Your task to perform on an android device: open device folders in google photos Image 0: 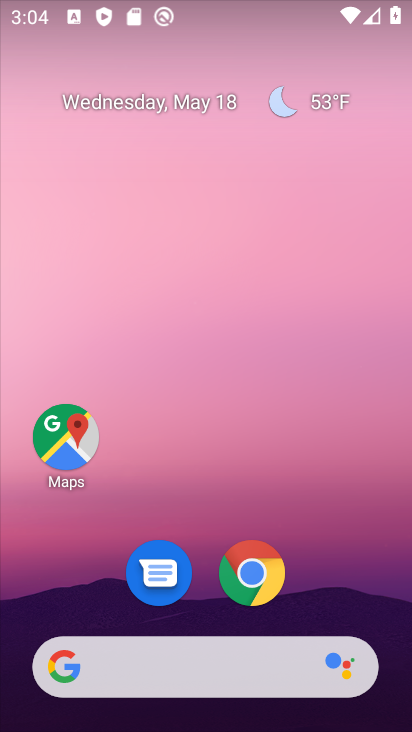
Step 0: drag from (220, 581) to (264, 233)
Your task to perform on an android device: open device folders in google photos Image 1: 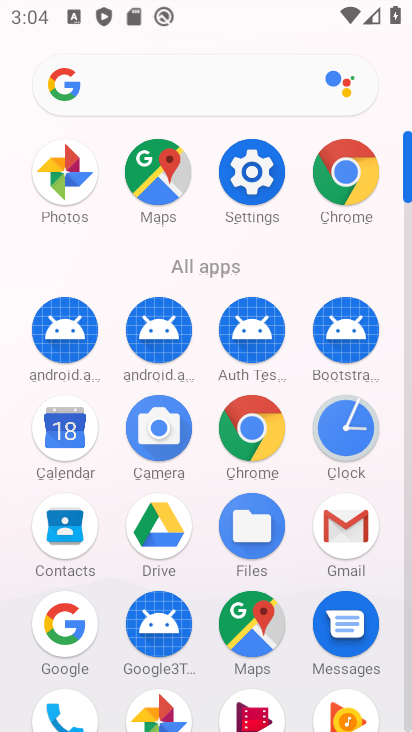
Step 1: click (71, 190)
Your task to perform on an android device: open device folders in google photos Image 2: 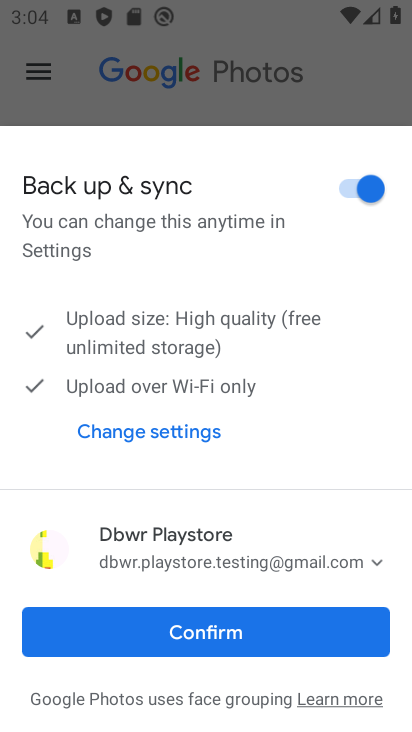
Step 2: click (270, 622)
Your task to perform on an android device: open device folders in google photos Image 3: 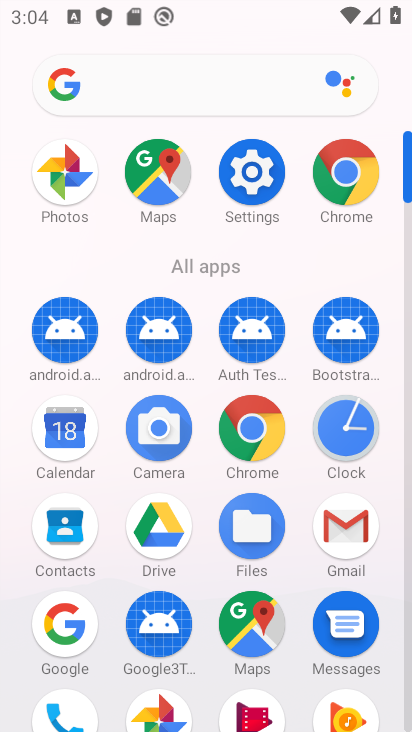
Step 3: click (90, 171)
Your task to perform on an android device: open device folders in google photos Image 4: 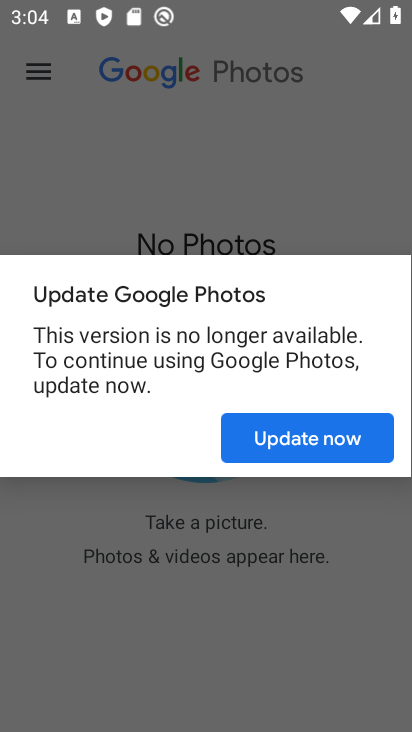
Step 4: click (304, 429)
Your task to perform on an android device: open device folders in google photos Image 5: 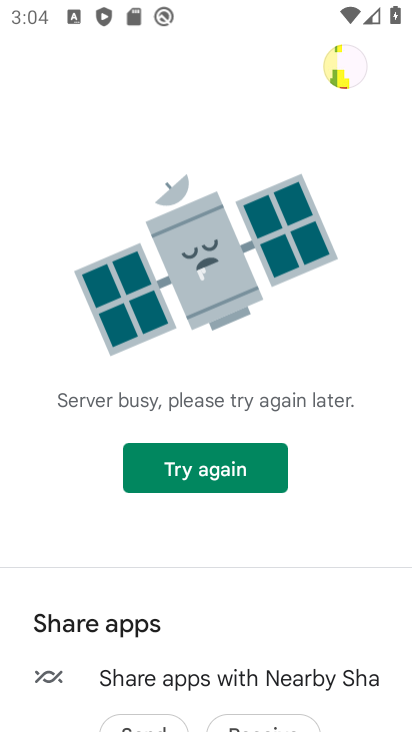
Step 5: press back button
Your task to perform on an android device: open device folders in google photos Image 6: 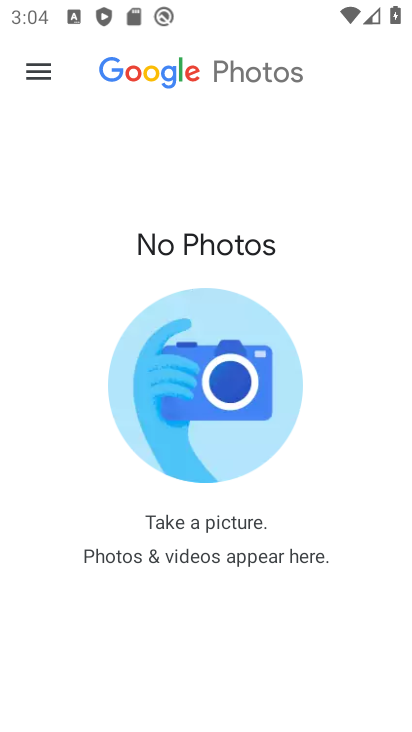
Step 6: click (48, 70)
Your task to perform on an android device: open device folders in google photos Image 7: 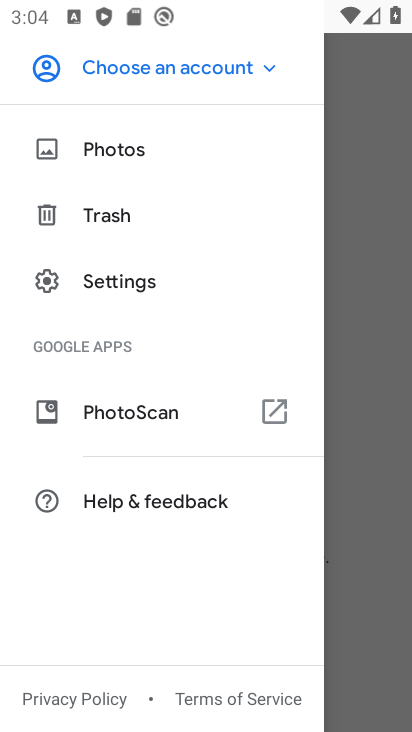
Step 7: click (207, 65)
Your task to perform on an android device: open device folders in google photos Image 8: 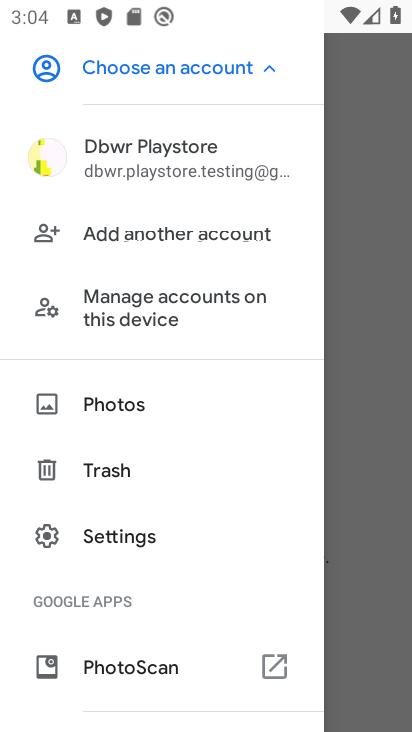
Step 8: click (141, 156)
Your task to perform on an android device: open device folders in google photos Image 9: 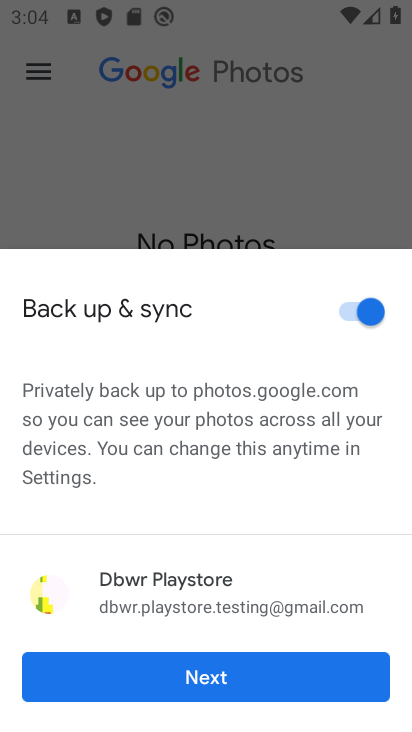
Step 9: click (153, 661)
Your task to perform on an android device: open device folders in google photos Image 10: 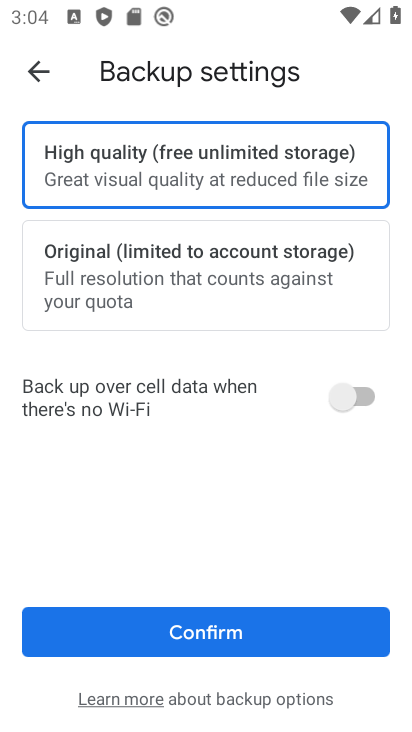
Step 10: click (185, 629)
Your task to perform on an android device: open device folders in google photos Image 11: 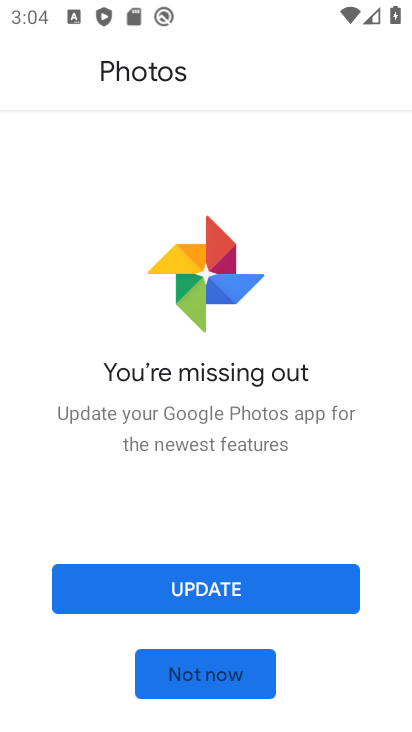
Step 11: click (210, 688)
Your task to perform on an android device: open device folders in google photos Image 12: 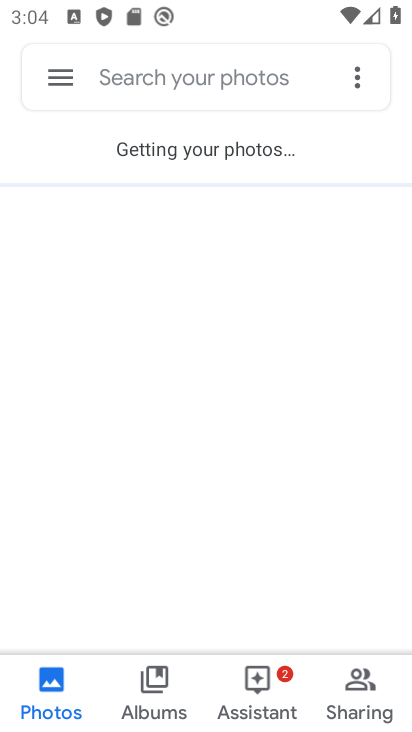
Step 12: click (63, 87)
Your task to perform on an android device: open device folders in google photos Image 13: 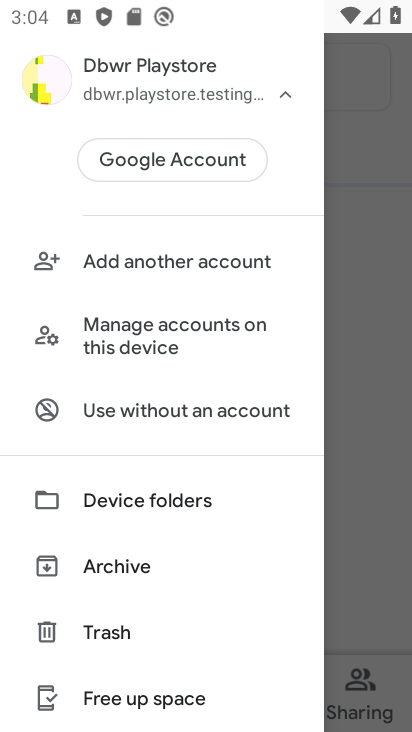
Step 13: click (146, 501)
Your task to perform on an android device: open device folders in google photos Image 14: 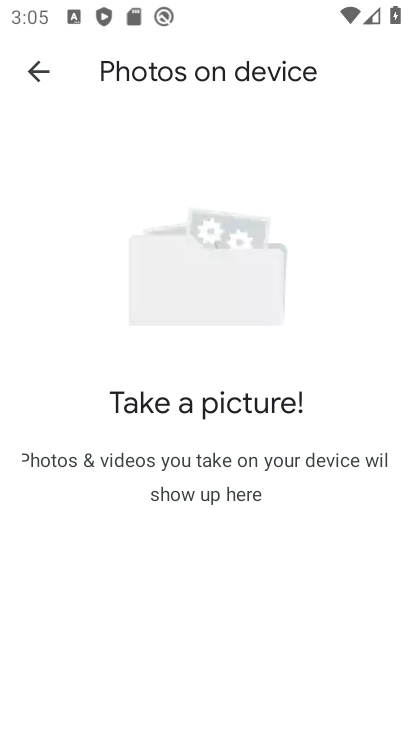
Step 14: task complete